Your task to perform on an android device: Open privacy settings Image 0: 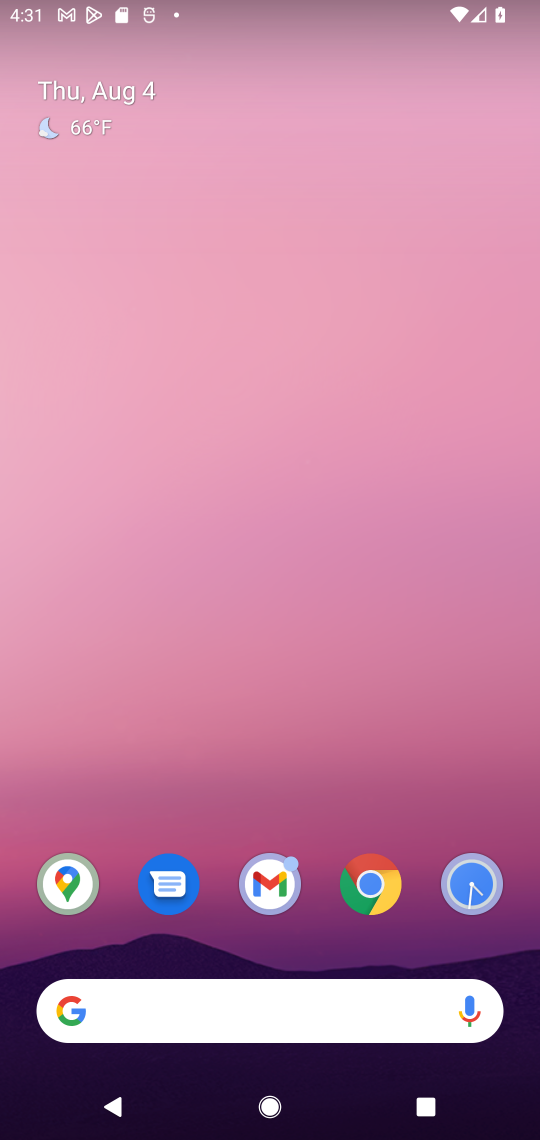
Step 0: drag from (354, 943) to (255, 191)
Your task to perform on an android device: Open privacy settings Image 1: 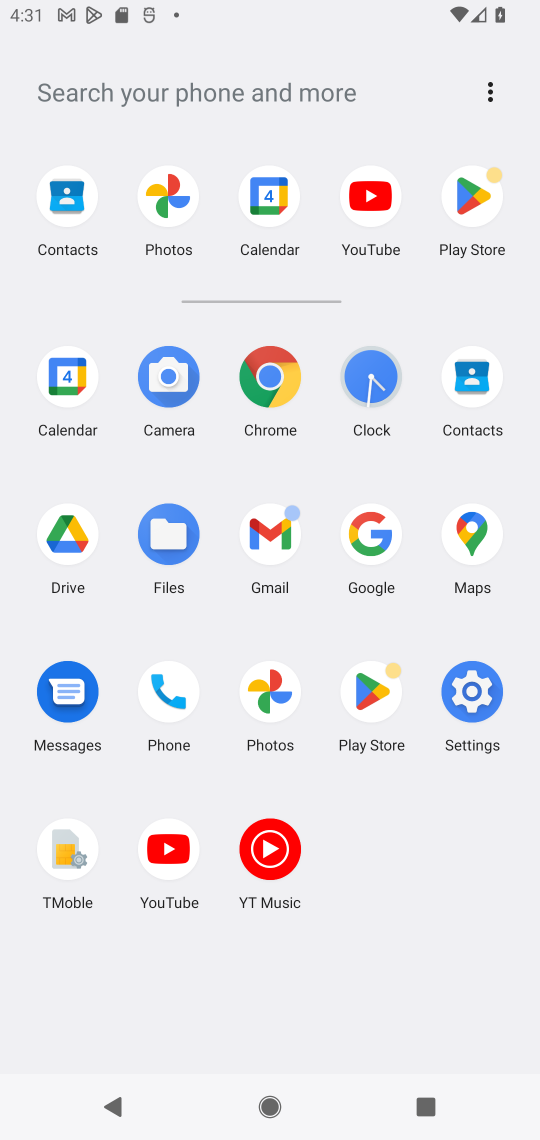
Step 1: click (476, 709)
Your task to perform on an android device: Open privacy settings Image 2: 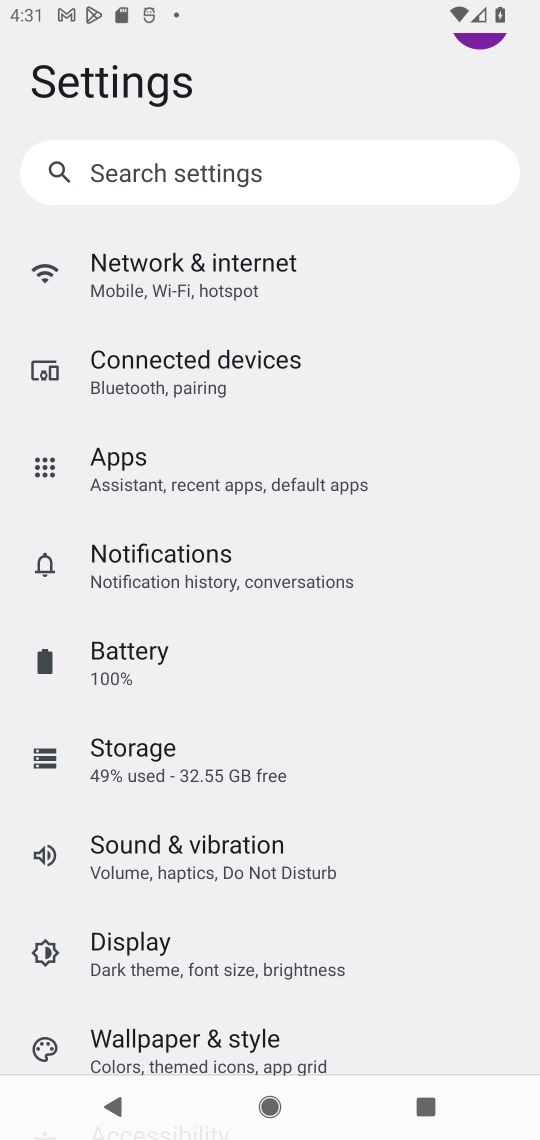
Step 2: drag from (380, 830) to (308, 251)
Your task to perform on an android device: Open privacy settings Image 3: 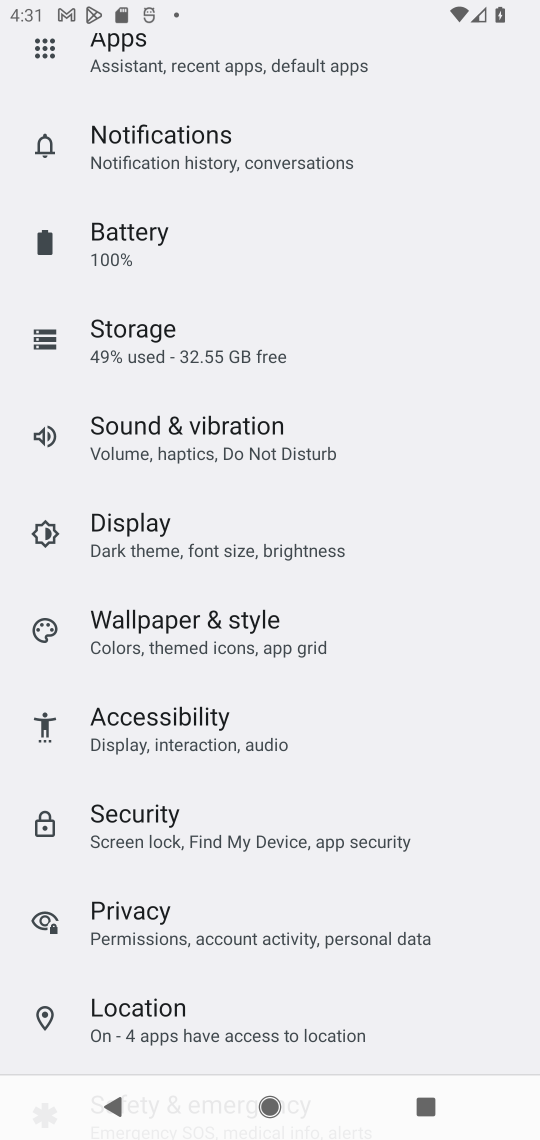
Step 3: drag from (311, 972) to (314, 526)
Your task to perform on an android device: Open privacy settings Image 4: 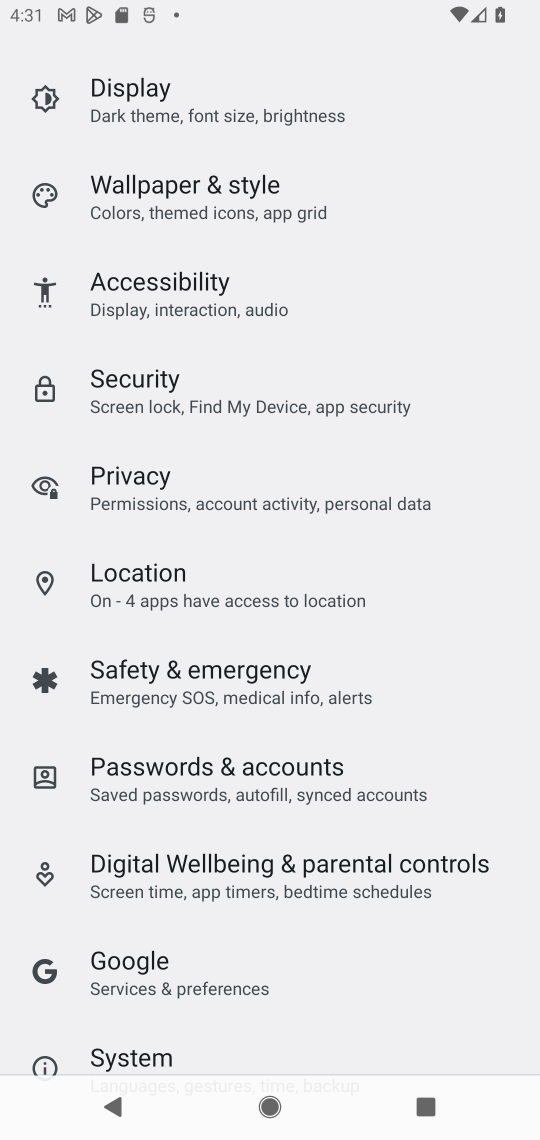
Step 4: click (286, 505)
Your task to perform on an android device: Open privacy settings Image 5: 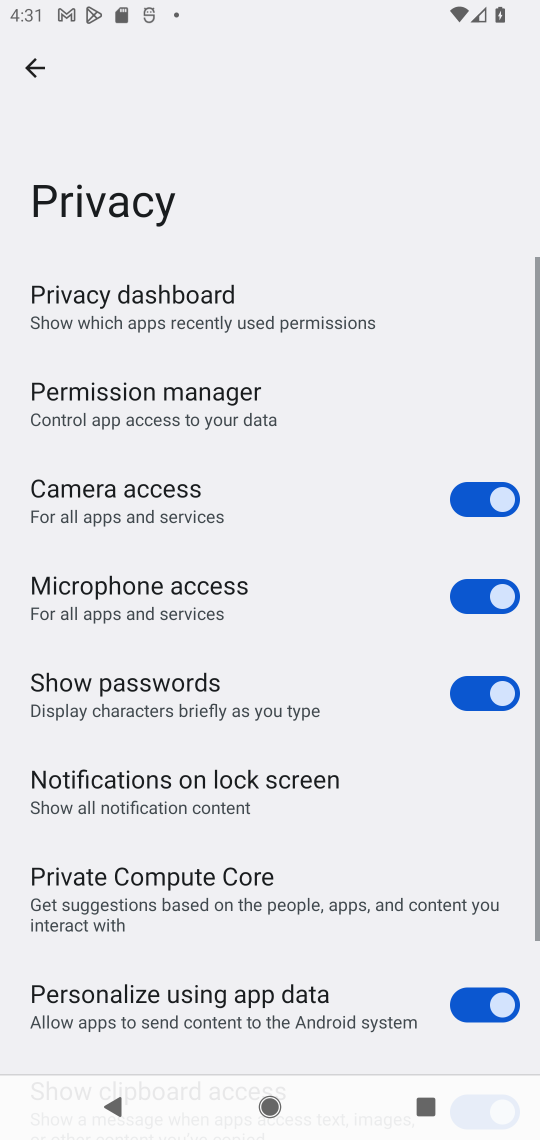
Step 5: task complete